Your task to perform on an android device: Open Youtube and go to "Your channel" Image 0: 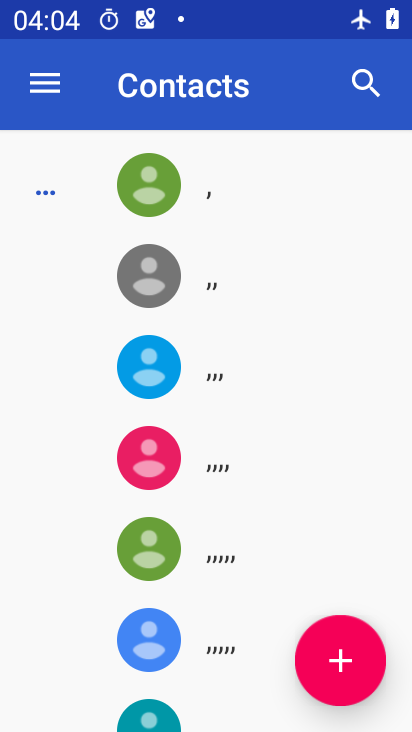
Step 0: press home button
Your task to perform on an android device: Open Youtube and go to "Your channel" Image 1: 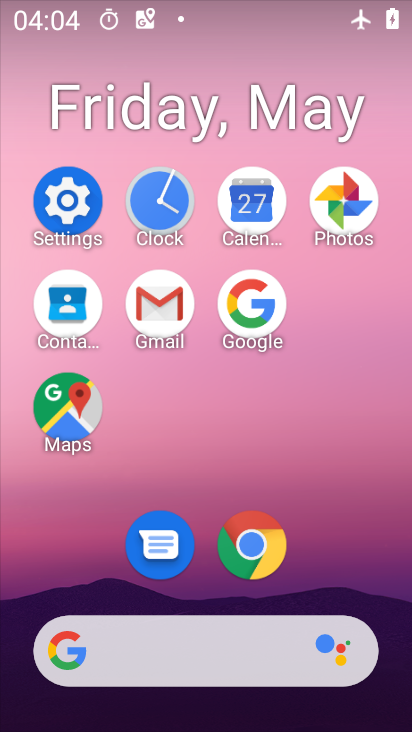
Step 1: drag from (338, 536) to (316, 103)
Your task to perform on an android device: Open Youtube and go to "Your channel" Image 2: 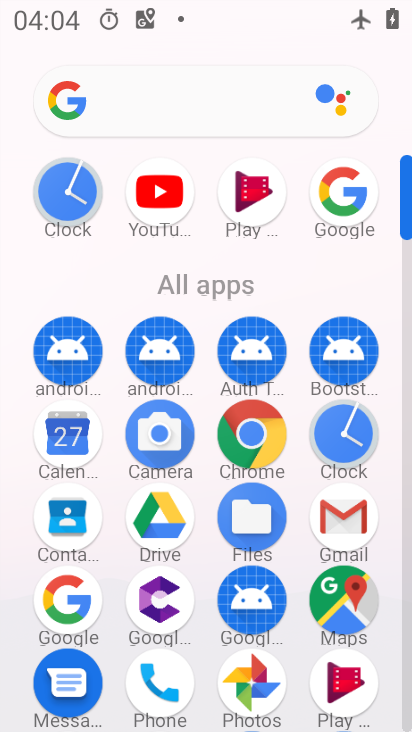
Step 2: click (147, 193)
Your task to perform on an android device: Open Youtube and go to "Your channel" Image 3: 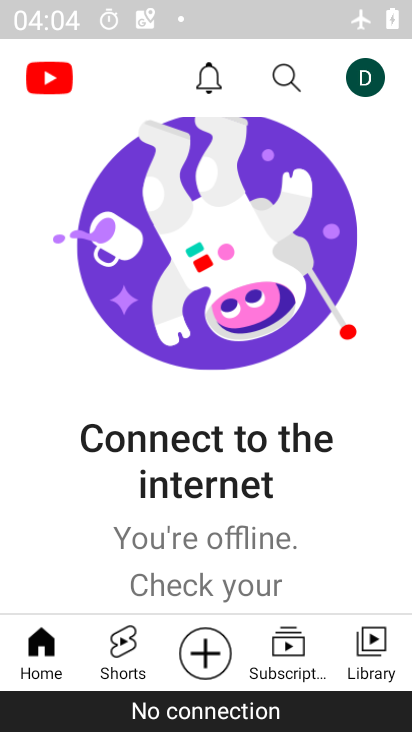
Step 3: click (374, 79)
Your task to perform on an android device: Open Youtube and go to "Your channel" Image 4: 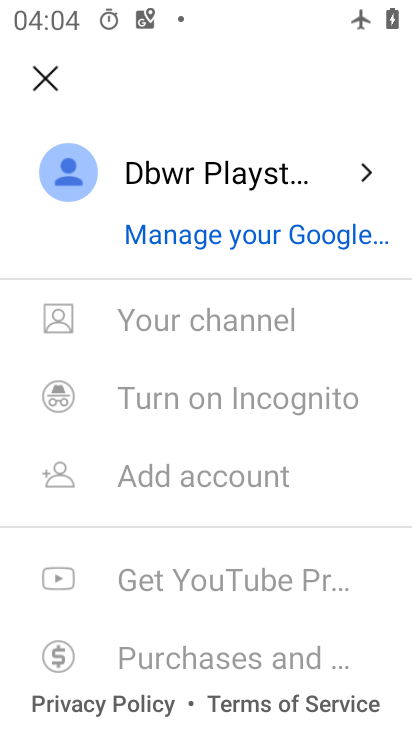
Step 4: click (237, 316)
Your task to perform on an android device: Open Youtube and go to "Your channel" Image 5: 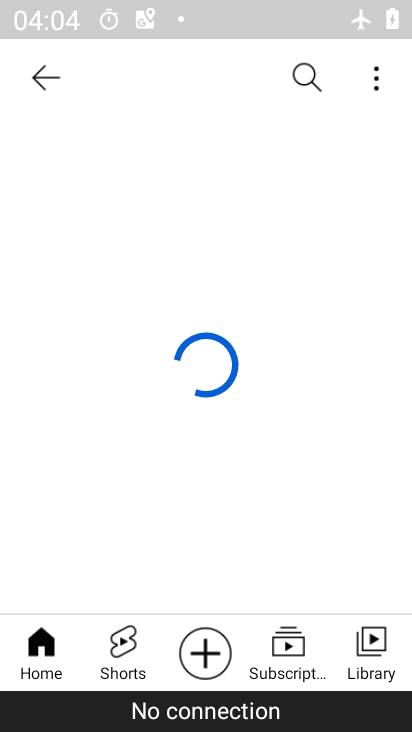
Step 5: task complete